Your task to perform on an android device: Go to internet settings Image 0: 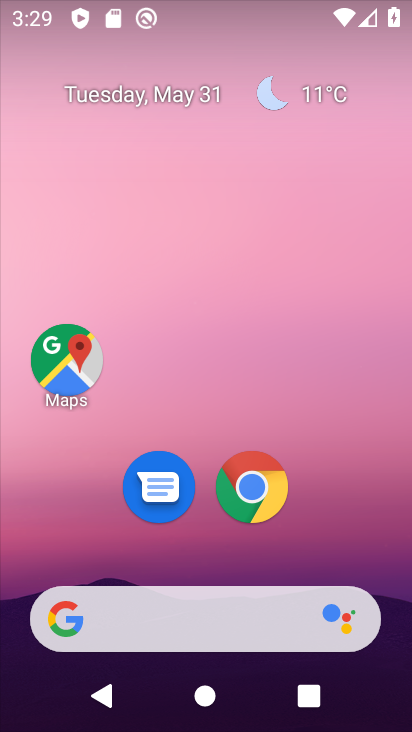
Step 0: drag from (340, 556) to (244, 167)
Your task to perform on an android device: Go to internet settings Image 1: 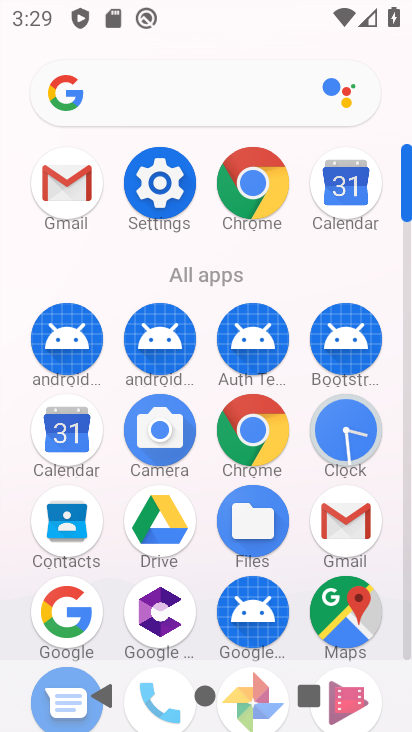
Step 1: click (161, 179)
Your task to perform on an android device: Go to internet settings Image 2: 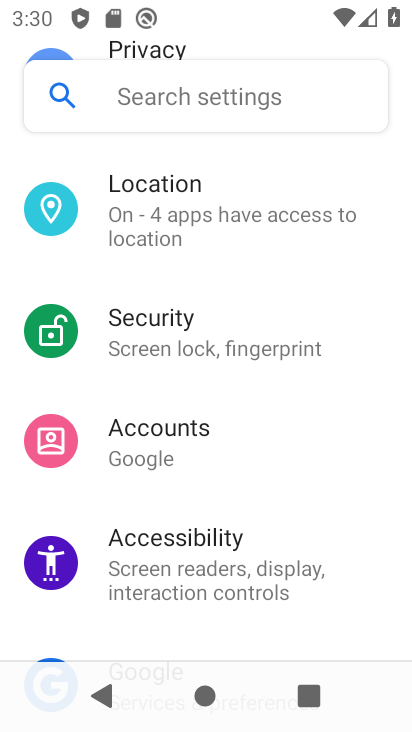
Step 2: drag from (202, 277) to (220, 408)
Your task to perform on an android device: Go to internet settings Image 3: 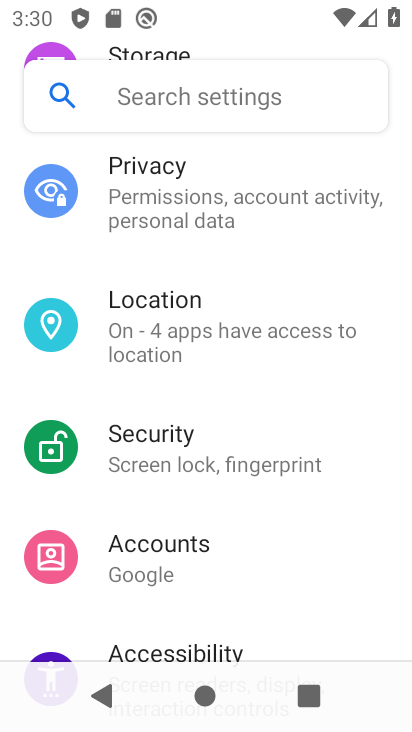
Step 3: drag from (186, 252) to (180, 385)
Your task to perform on an android device: Go to internet settings Image 4: 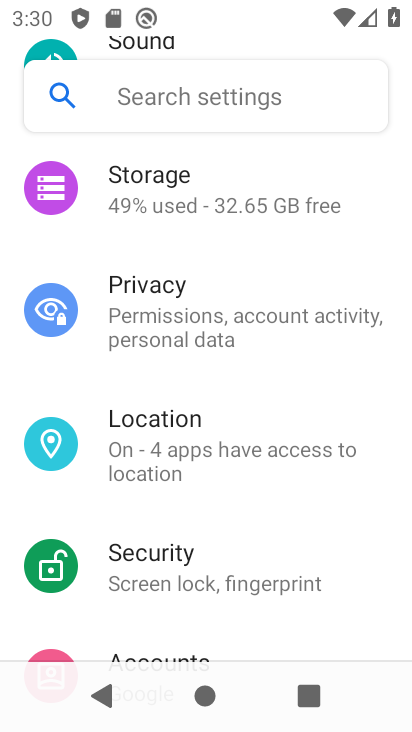
Step 4: drag from (187, 249) to (177, 393)
Your task to perform on an android device: Go to internet settings Image 5: 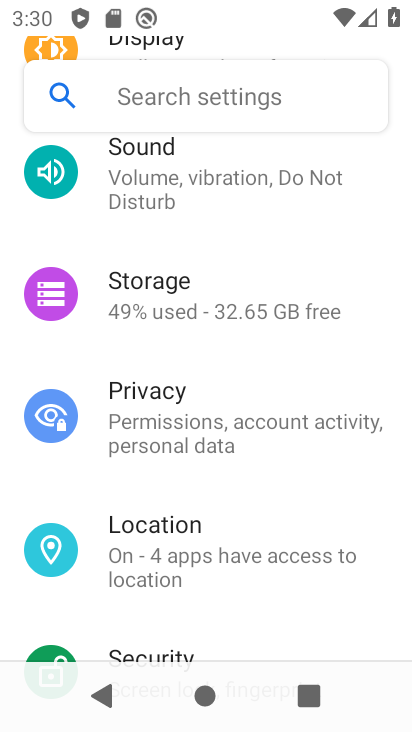
Step 5: drag from (145, 232) to (164, 411)
Your task to perform on an android device: Go to internet settings Image 6: 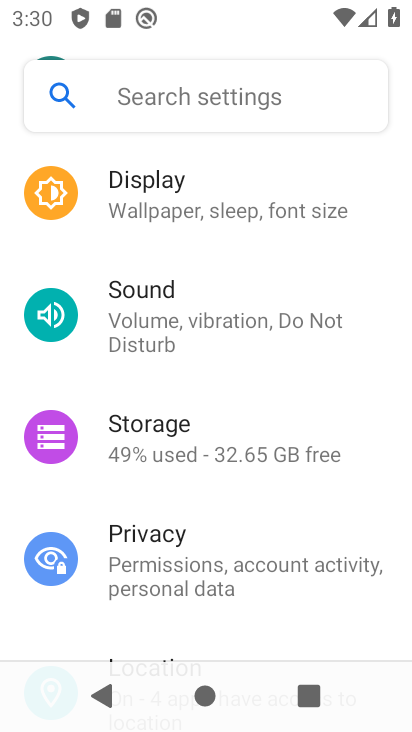
Step 6: drag from (142, 259) to (201, 392)
Your task to perform on an android device: Go to internet settings Image 7: 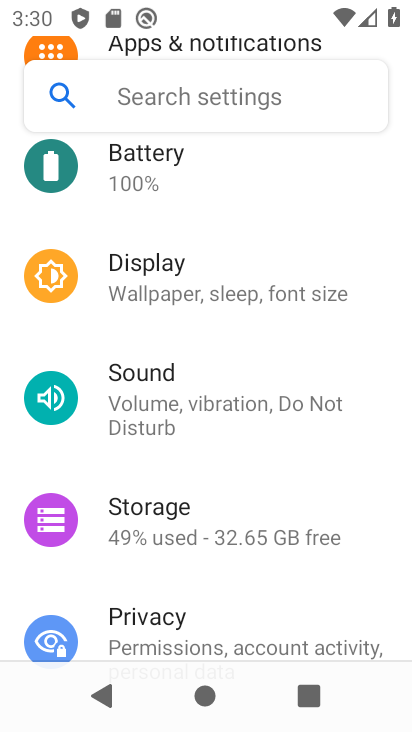
Step 7: drag from (143, 222) to (184, 347)
Your task to perform on an android device: Go to internet settings Image 8: 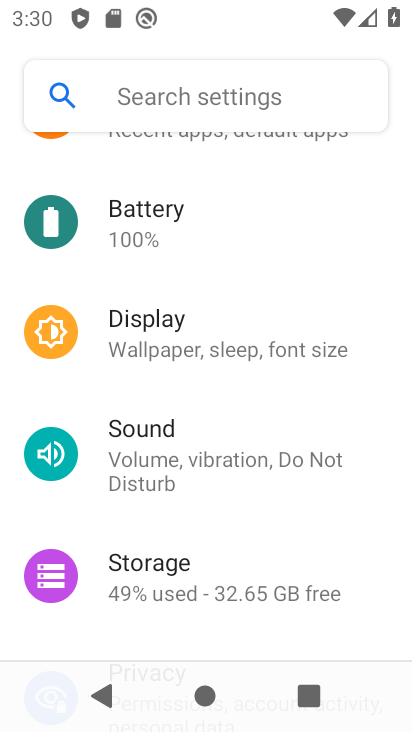
Step 8: drag from (155, 171) to (182, 315)
Your task to perform on an android device: Go to internet settings Image 9: 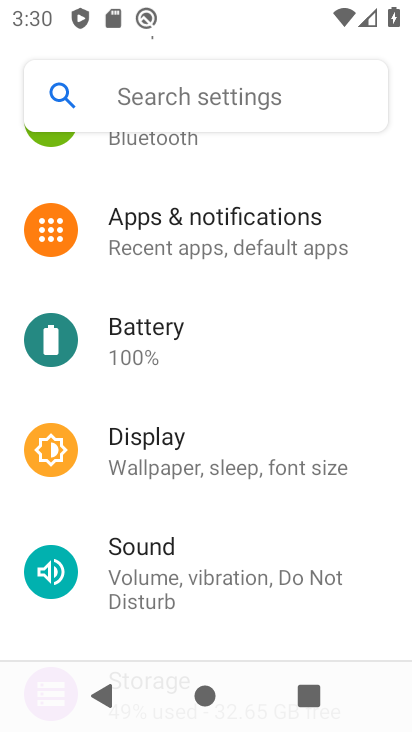
Step 9: drag from (120, 183) to (131, 349)
Your task to perform on an android device: Go to internet settings Image 10: 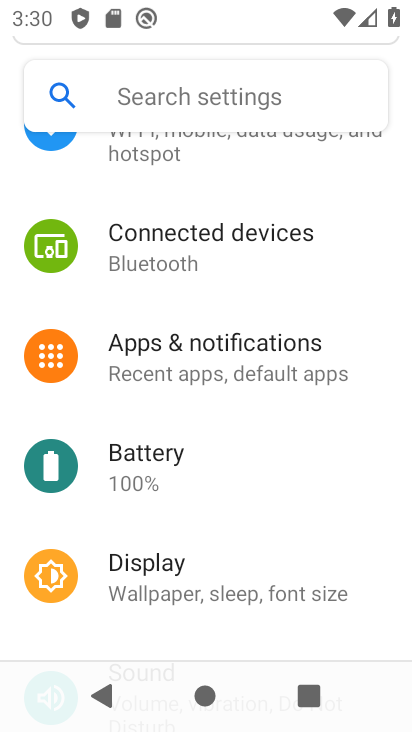
Step 10: drag from (154, 198) to (137, 374)
Your task to perform on an android device: Go to internet settings Image 11: 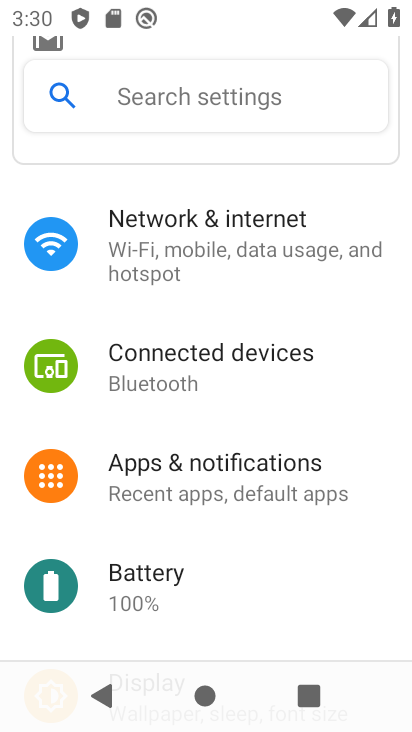
Step 11: click (189, 228)
Your task to perform on an android device: Go to internet settings Image 12: 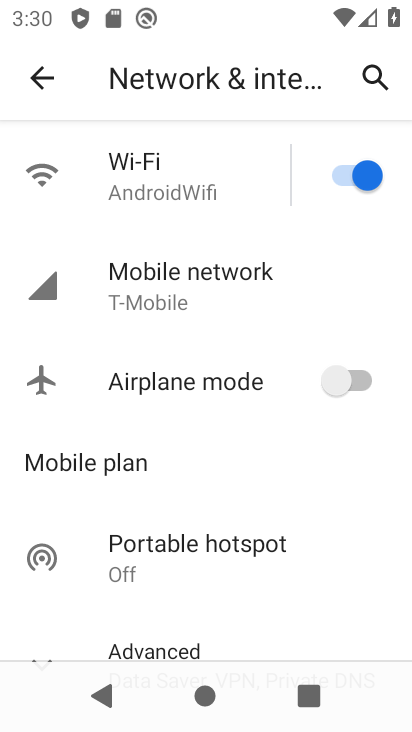
Step 12: click (167, 200)
Your task to perform on an android device: Go to internet settings Image 13: 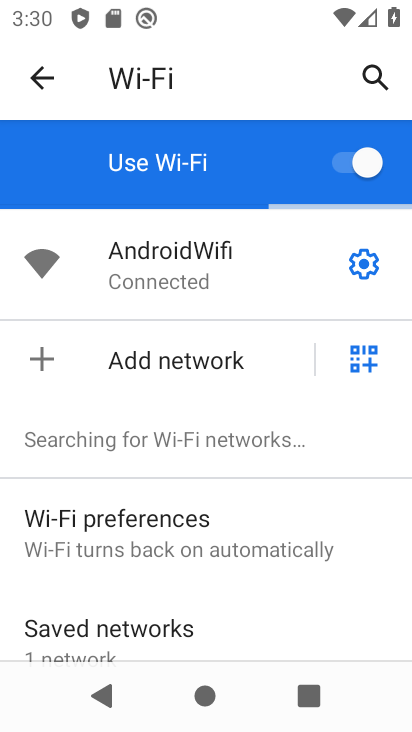
Step 13: task complete